Your task to perform on an android device: delete the emails in spam in the gmail app Image 0: 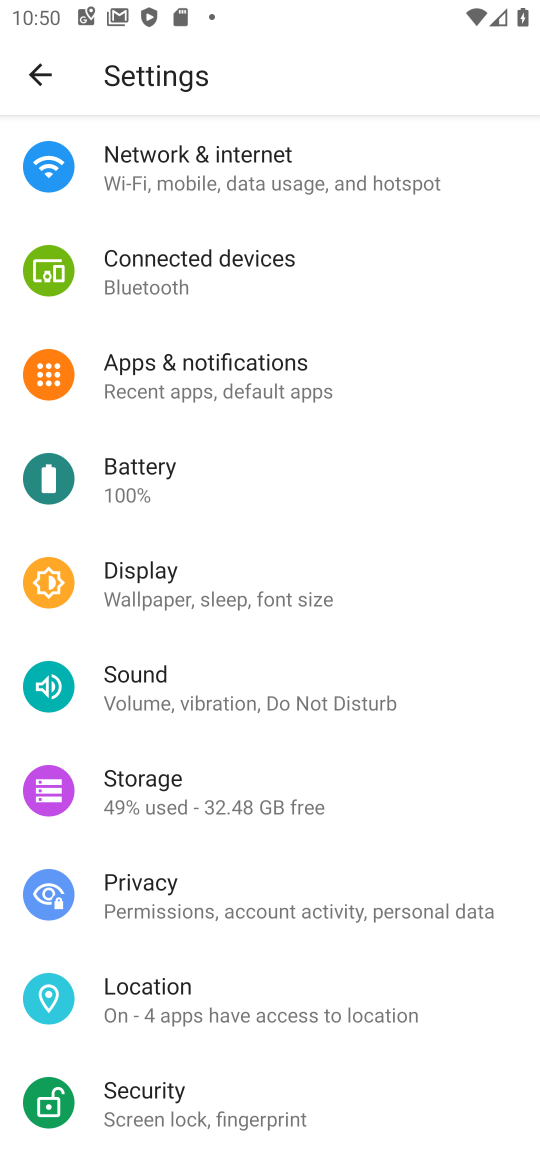
Step 0: press home button
Your task to perform on an android device: delete the emails in spam in the gmail app Image 1: 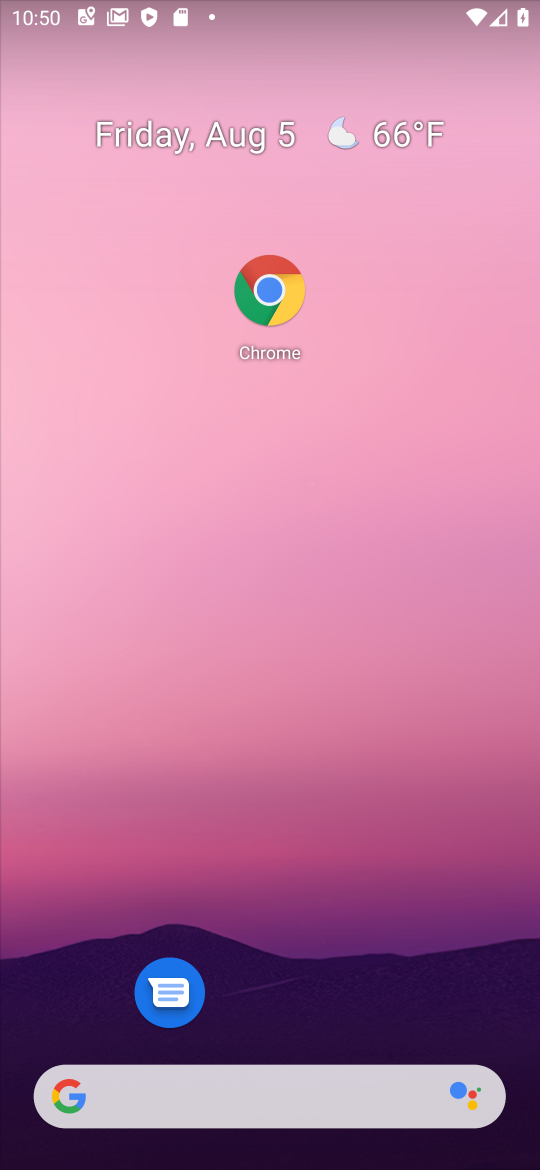
Step 1: drag from (401, 990) to (402, 4)
Your task to perform on an android device: delete the emails in spam in the gmail app Image 2: 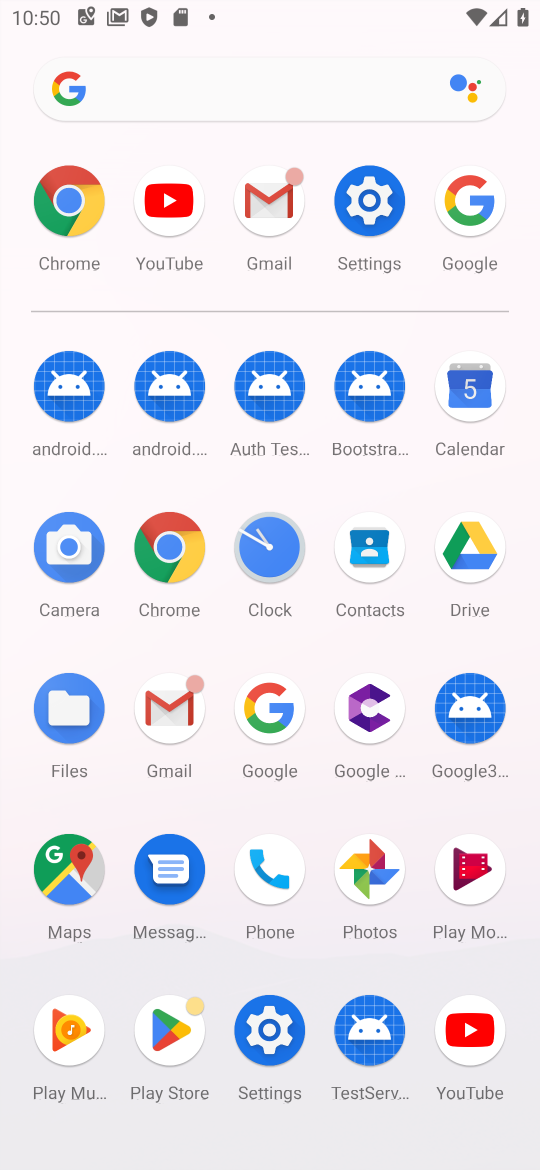
Step 2: click (279, 218)
Your task to perform on an android device: delete the emails in spam in the gmail app Image 3: 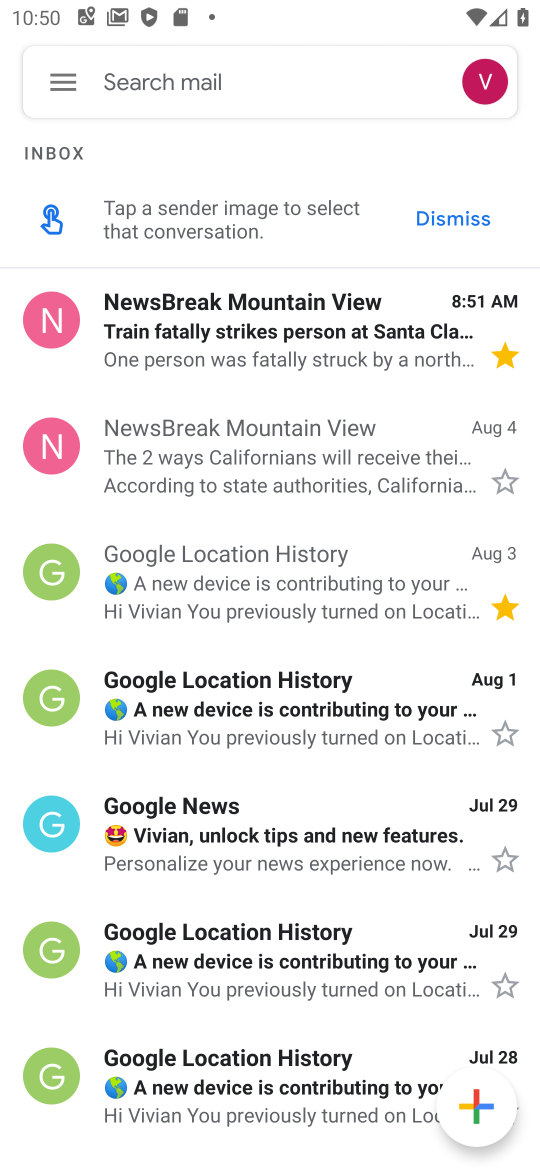
Step 3: click (52, 77)
Your task to perform on an android device: delete the emails in spam in the gmail app Image 4: 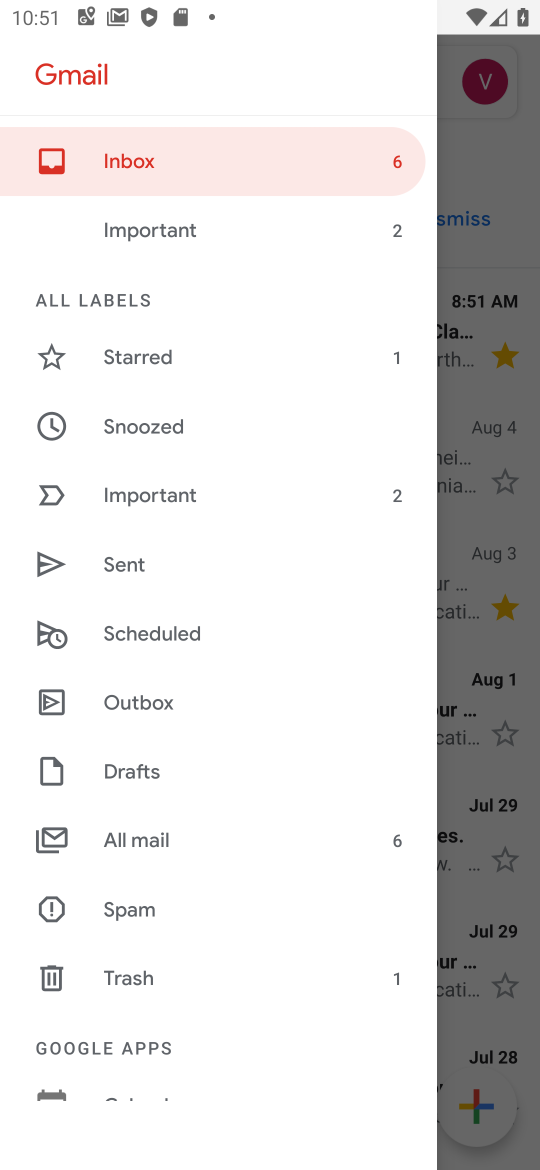
Step 4: click (122, 909)
Your task to perform on an android device: delete the emails in spam in the gmail app Image 5: 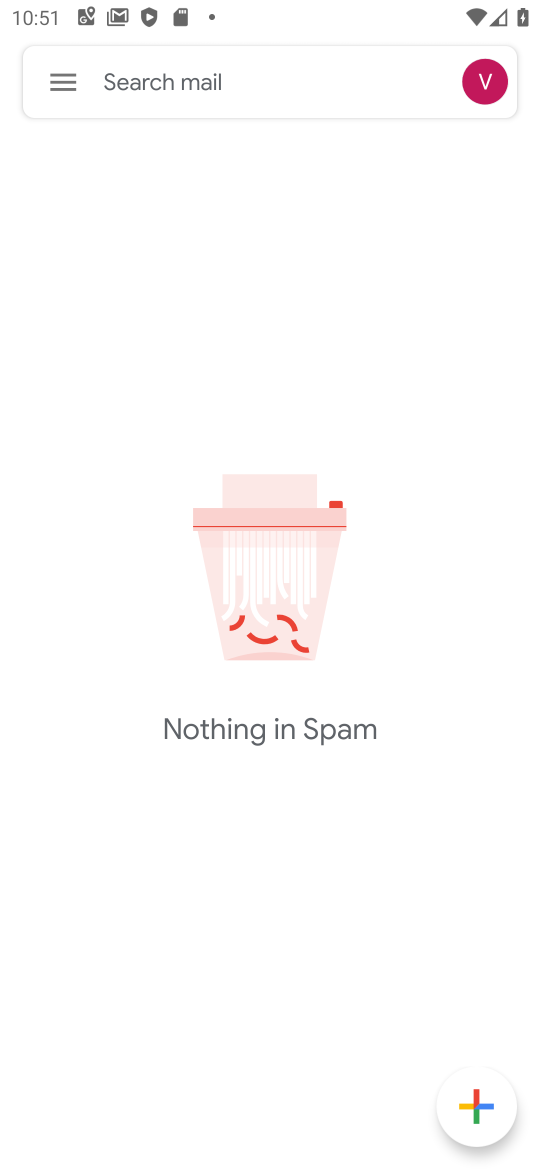
Step 5: task complete